Your task to perform on an android device: turn off translation in the chrome app Image 0: 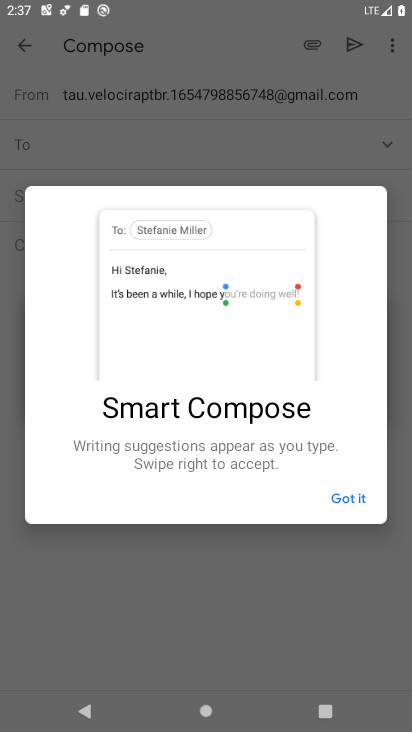
Step 0: press home button
Your task to perform on an android device: turn off translation in the chrome app Image 1: 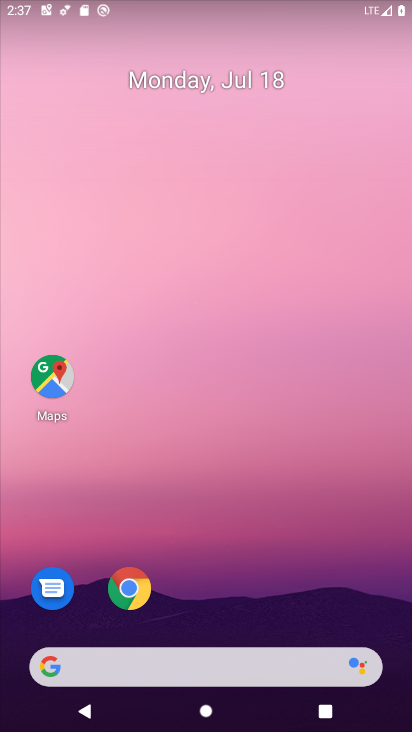
Step 1: click (135, 590)
Your task to perform on an android device: turn off translation in the chrome app Image 2: 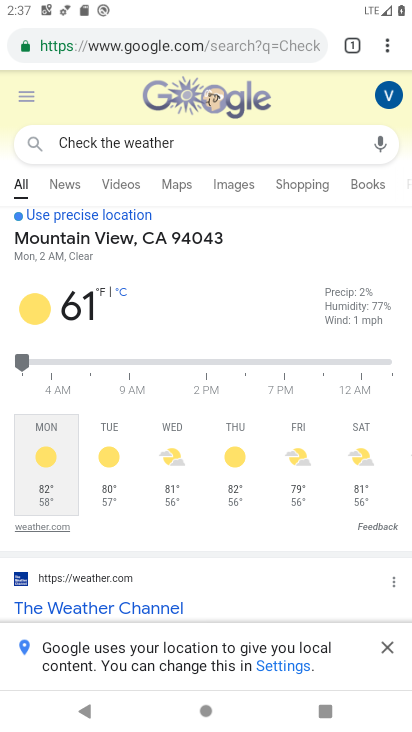
Step 2: click (389, 39)
Your task to perform on an android device: turn off translation in the chrome app Image 3: 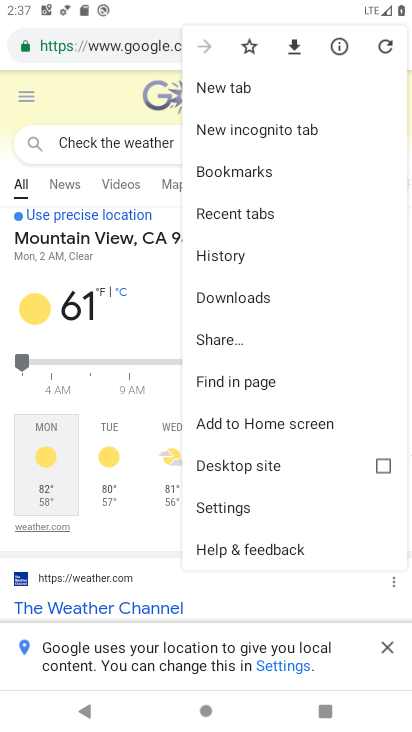
Step 3: click (256, 506)
Your task to perform on an android device: turn off translation in the chrome app Image 4: 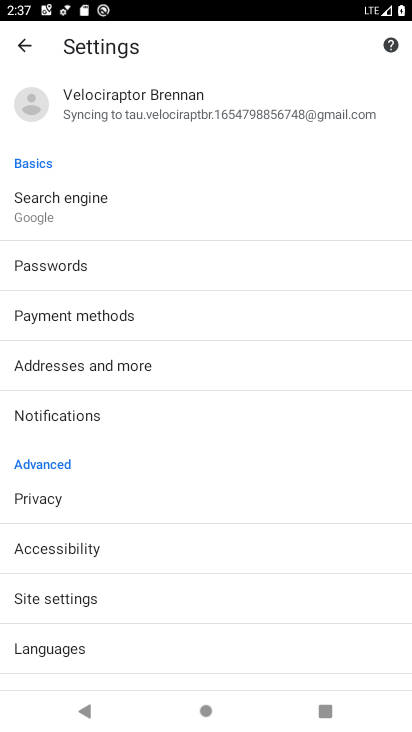
Step 4: click (119, 643)
Your task to perform on an android device: turn off translation in the chrome app Image 5: 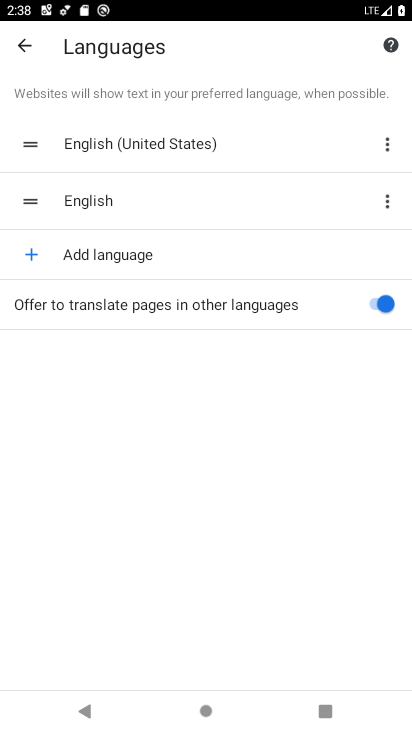
Step 5: click (388, 310)
Your task to perform on an android device: turn off translation in the chrome app Image 6: 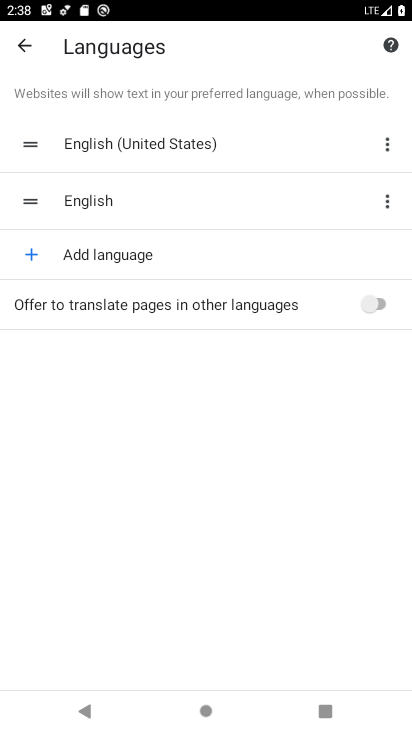
Step 6: task complete